Your task to perform on an android device: toggle data saver in the chrome app Image 0: 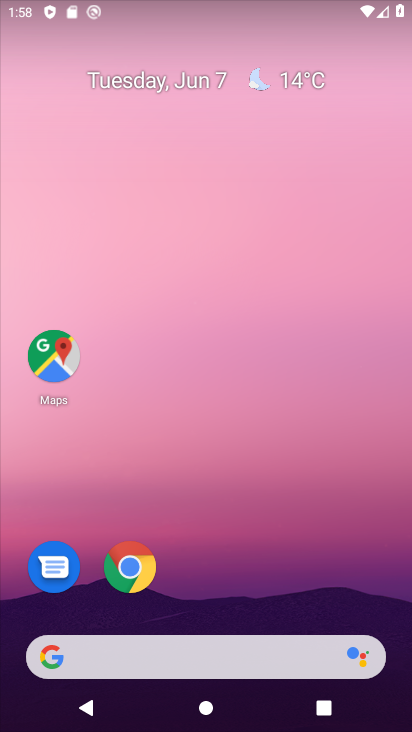
Step 0: drag from (198, 579) to (185, 272)
Your task to perform on an android device: toggle data saver in the chrome app Image 1: 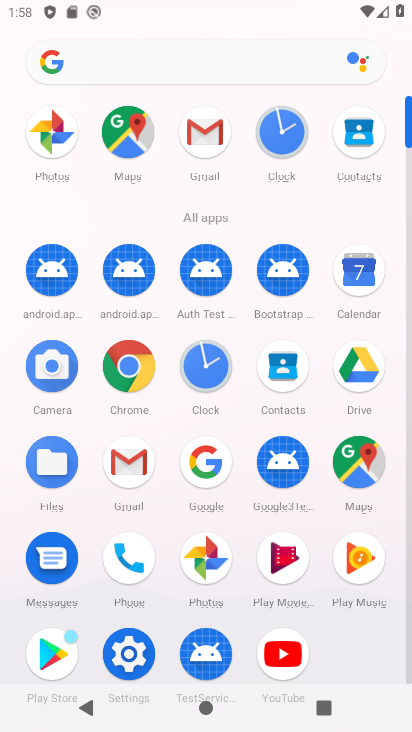
Step 1: click (129, 373)
Your task to perform on an android device: toggle data saver in the chrome app Image 2: 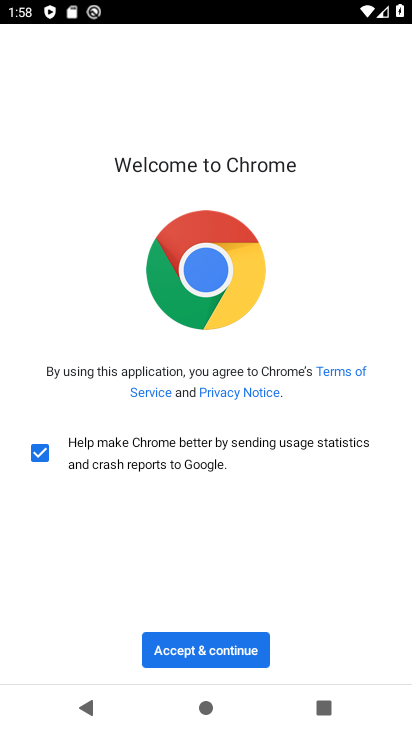
Step 2: click (236, 660)
Your task to perform on an android device: toggle data saver in the chrome app Image 3: 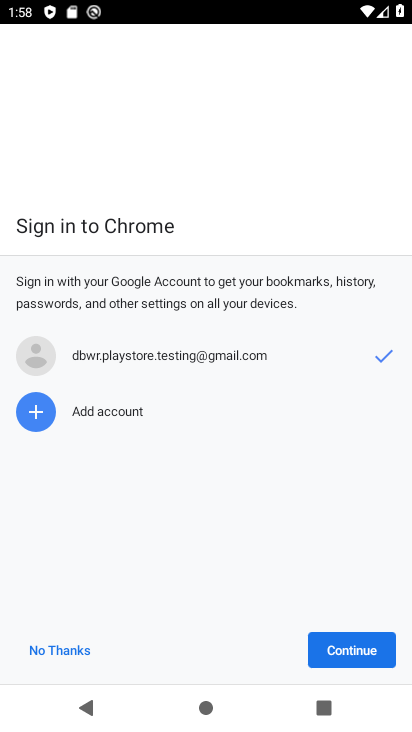
Step 3: click (324, 632)
Your task to perform on an android device: toggle data saver in the chrome app Image 4: 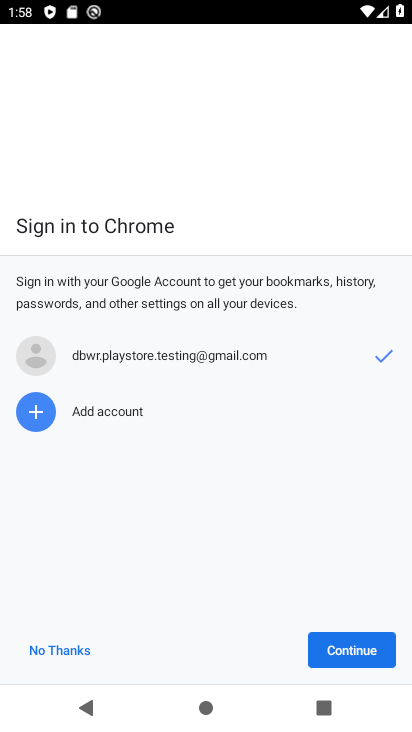
Step 4: click (339, 636)
Your task to perform on an android device: toggle data saver in the chrome app Image 5: 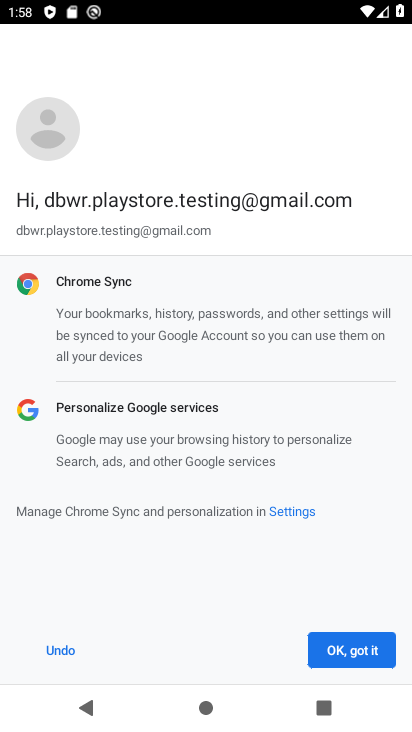
Step 5: click (352, 655)
Your task to perform on an android device: toggle data saver in the chrome app Image 6: 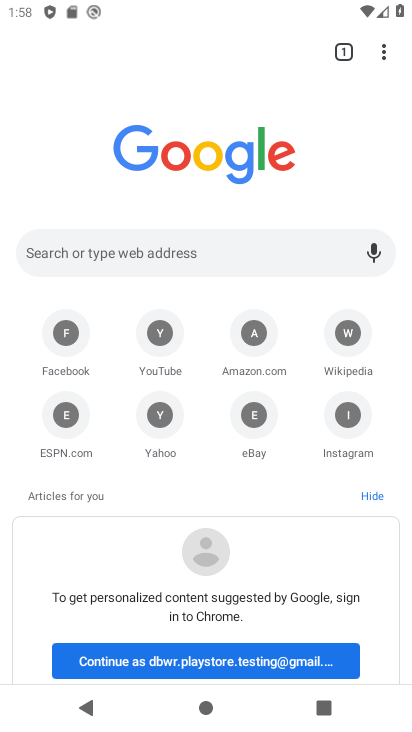
Step 6: click (379, 58)
Your task to perform on an android device: toggle data saver in the chrome app Image 7: 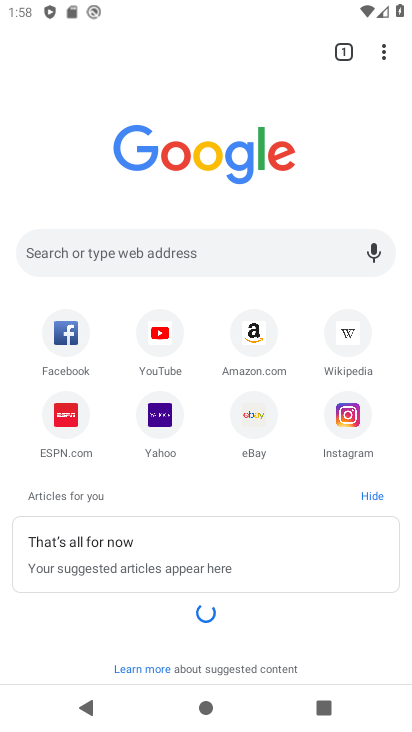
Step 7: drag from (382, 51) to (219, 433)
Your task to perform on an android device: toggle data saver in the chrome app Image 8: 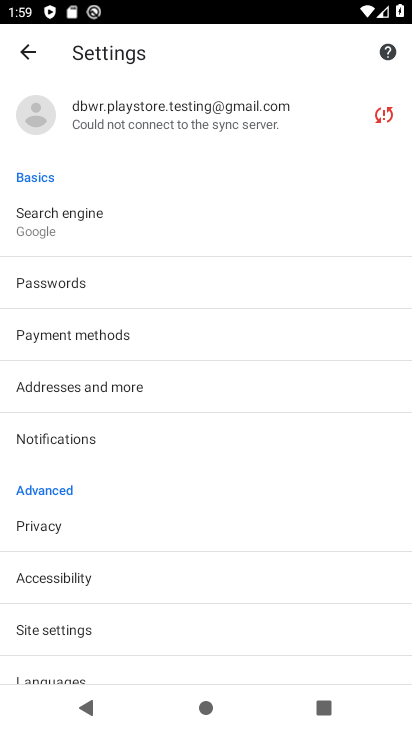
Step 8: drag from (163, 596) to (168, 395)
Your task to perform on an android device: toggle data saver in the chrome app Image 9: 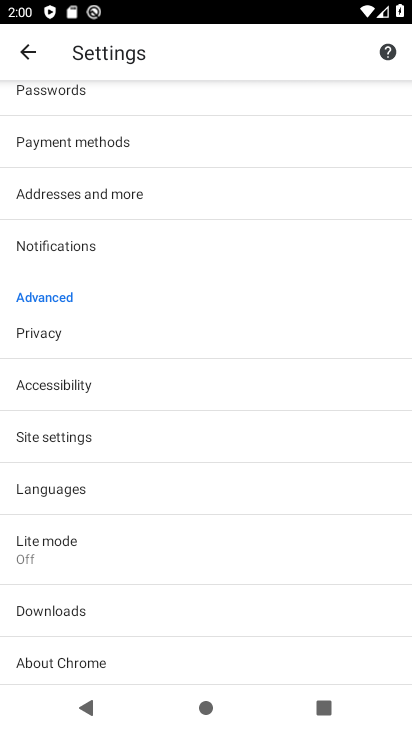
Step 9: click (119, 546)
Your task to perform on an android device: toggle data saver in the chrome app Image 10: 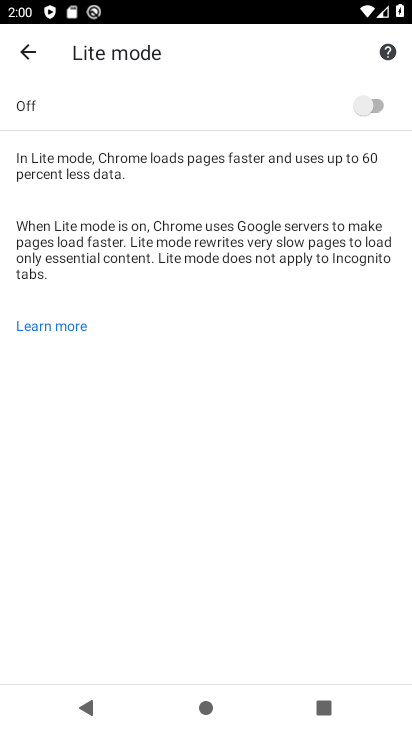
Step 10: click (369, 101)
Your task to perform on an android device: toggle data saver in the chrome app Image 11: 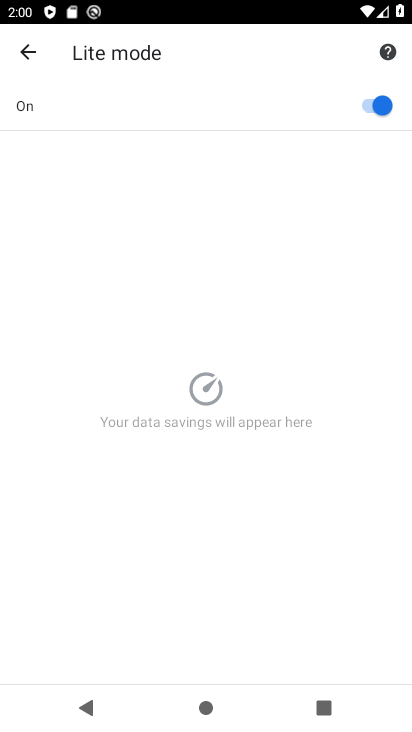
Step 11: task complete